Your task to perform on an android device: Search for sushi restaurants on Maps Image 0: 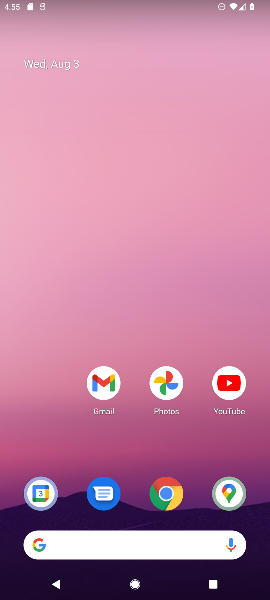
Step 0: press home button
Your task to perform on an android device: Search for sushi restaurants on Maps Image 1: 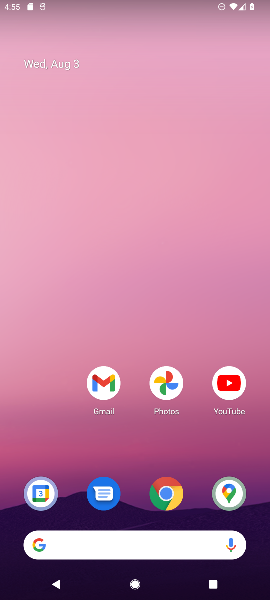
Step 1: drag from (51, 449) to (59, 109)
Your task to perform on an android device: Search for sushi restaurants on Maps Image 2: 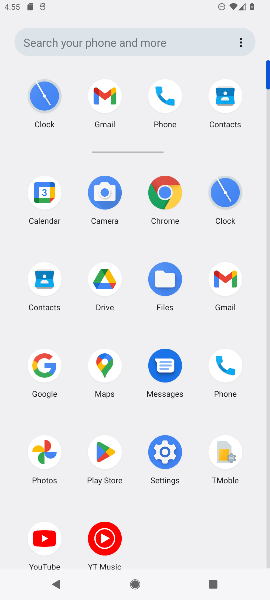
Step 2: click (108, 369)
Your task to perform on an android device: Search for sushi restaurants on Maps Image 3: 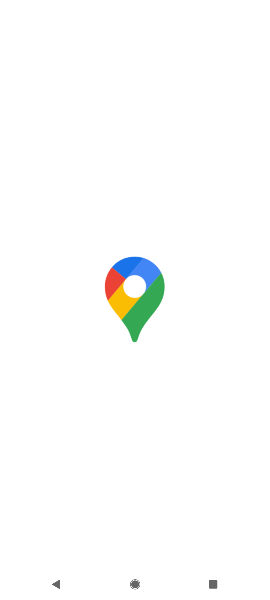
Step 3: task complete